Your task to perform on an android device: Open eBay Image 0: 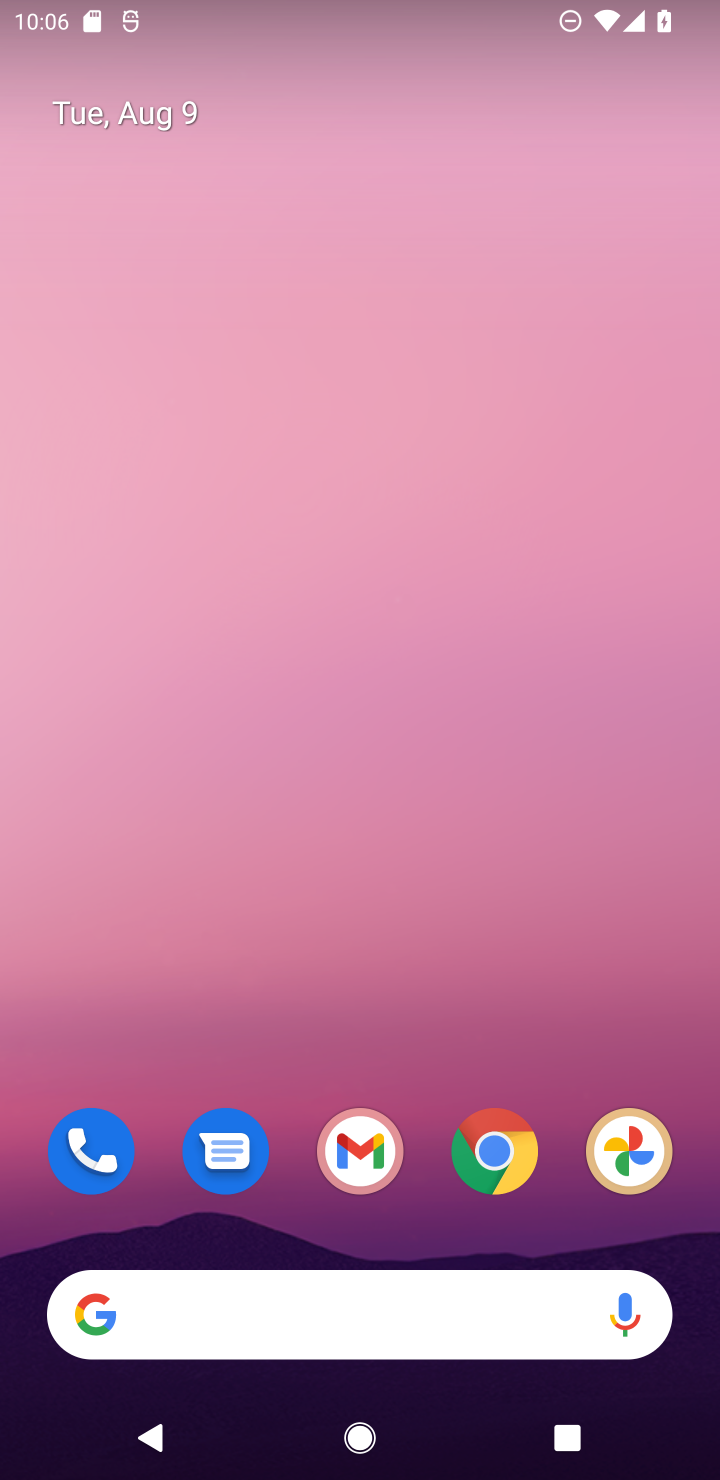
Step 0: click (478, 1159)
Your task to perform on an android device: Open eBay Image 1: 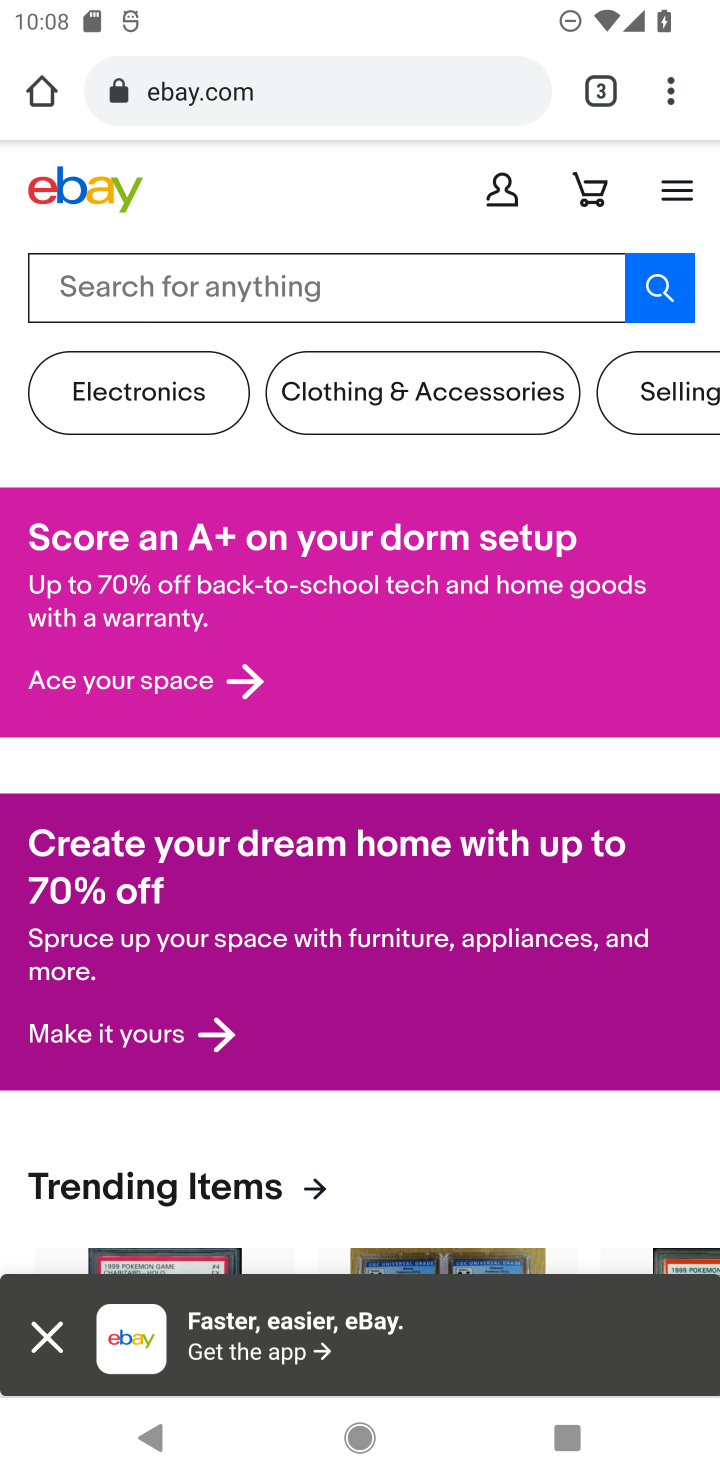
Step 1: task complete